Your task to perform on an android device: Turn off the flashlight Image 0: 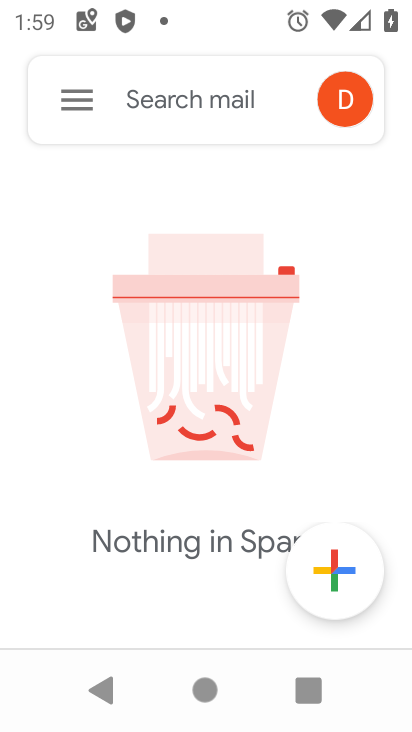
Step 0: press home button
Your task to perform on an android device: Turn off the flashlight Image 1: 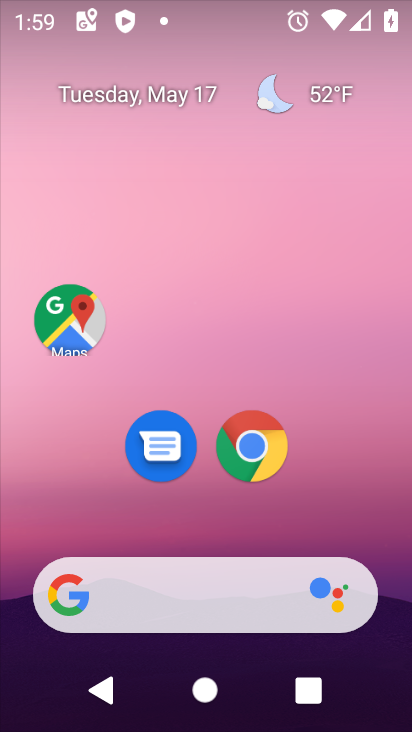
Step 1: drag from (173, 527) to (225, 156)
Your task to perform on an android device: Turn off the flashlight Image 2: 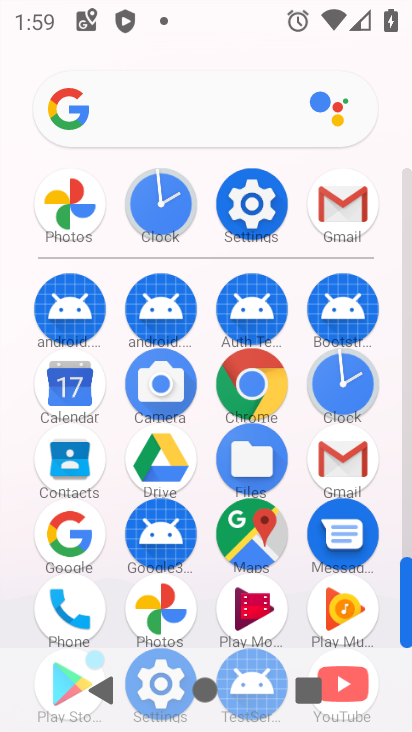
Step 2: click (246, 206)
Your task to perform on an android device: Turn off the flashlight Image 3: 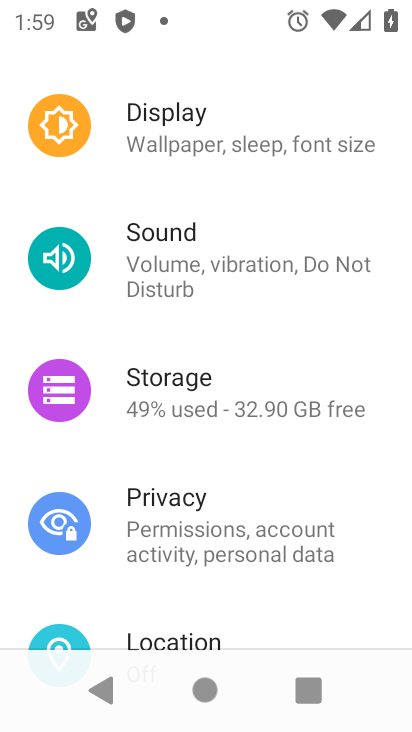
Step 3: click (209, 139)
Your task to perform on an android device: Turn off the flashlight Image 4: 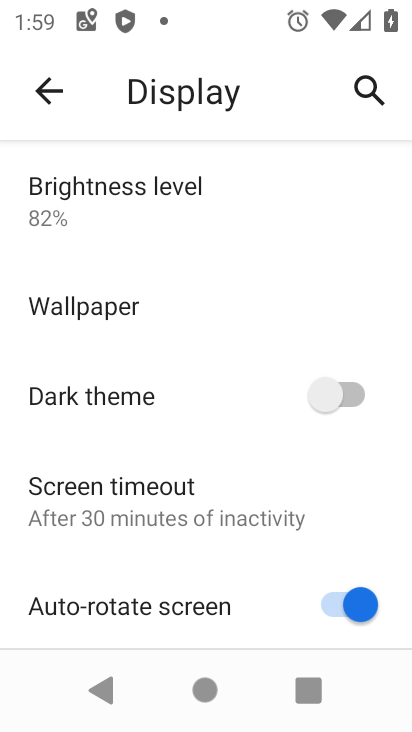
Step 4: task complete